Your task to perform on an android device: What's on my calendar today? Image 0: 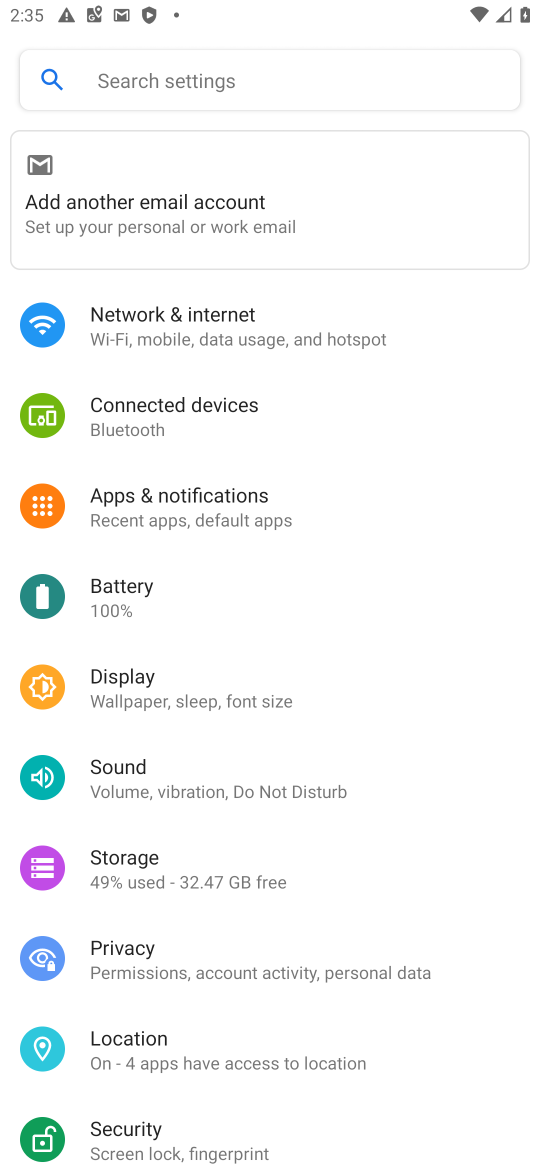
Step 0: press home button
Your task to perform on an android device: What's on my calendar today? Image 1: 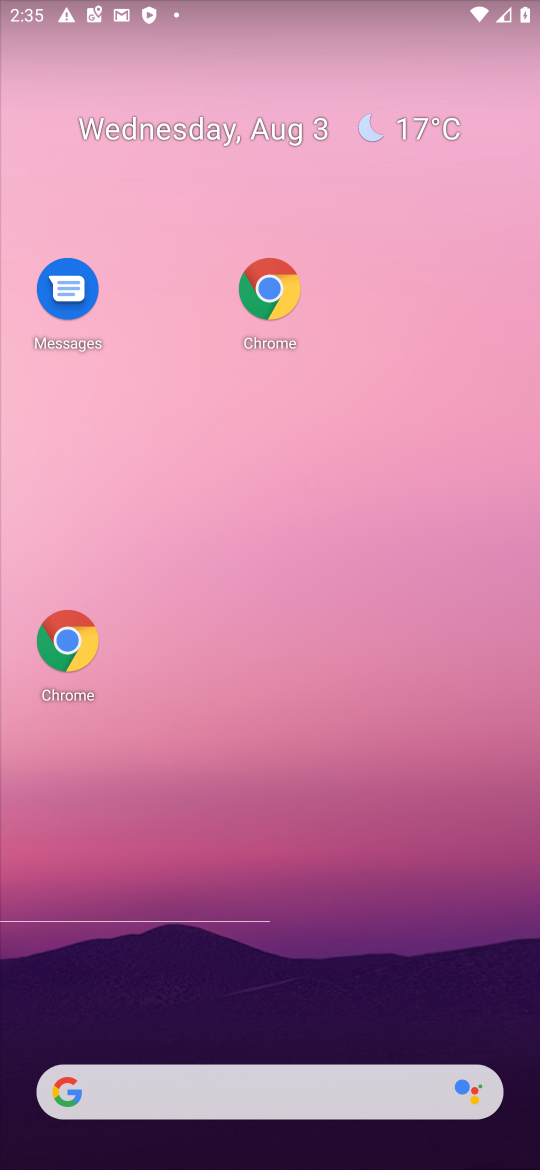
Step 1: drag from (436, 1020) to (391, 266)
Your task to perform on an android device: What's on my calendar today? Image 2: 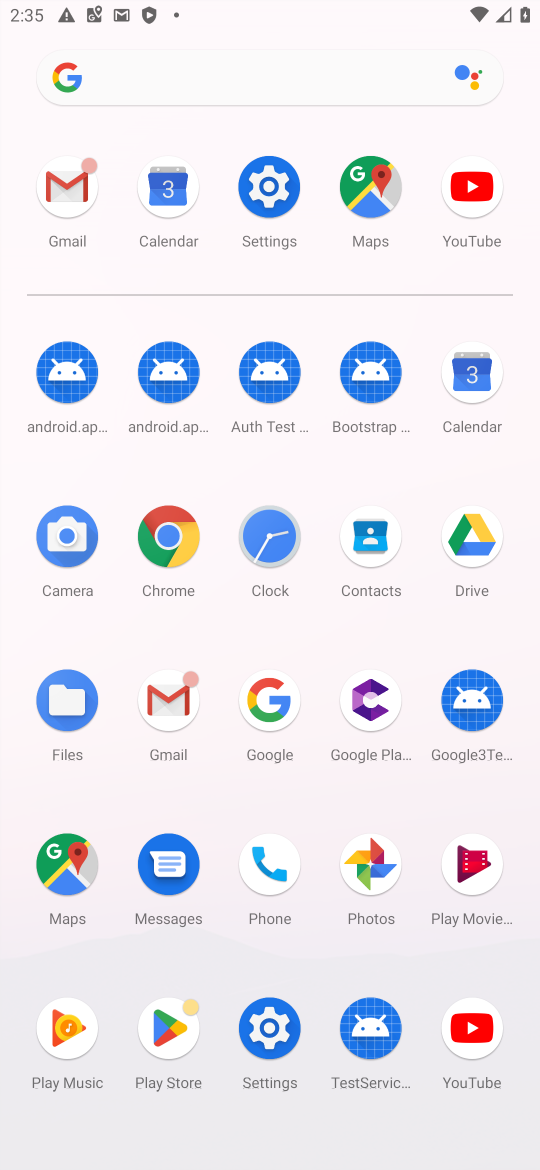
Step 2: click (456, 367)
Your task to perform on an android device: What's on my calendar today? Image 3: 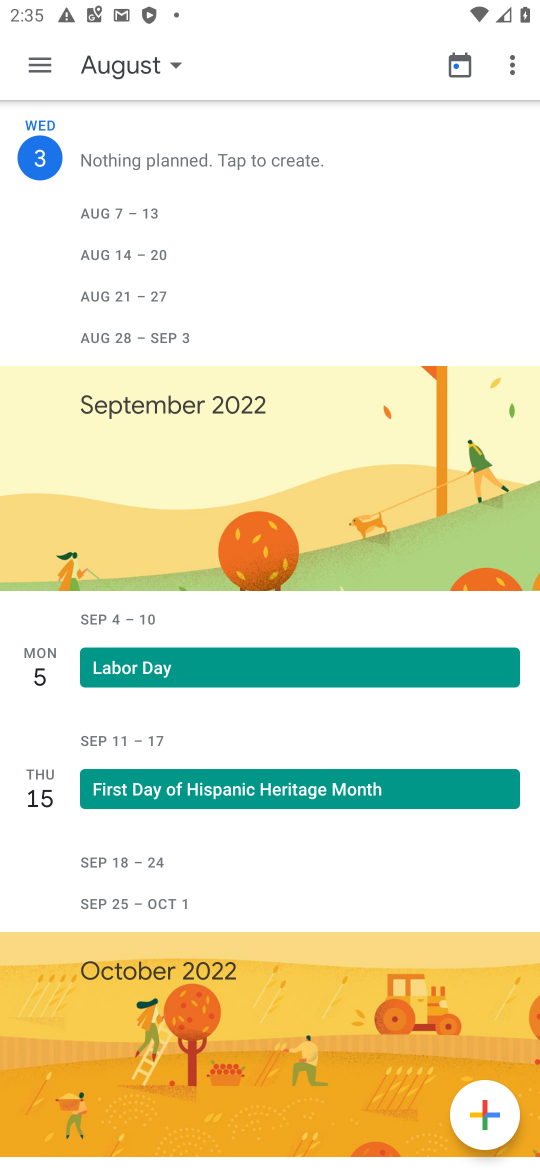
Step 3: task complete